Your task to perform on an android device: Toggle the flashlight Image 0: 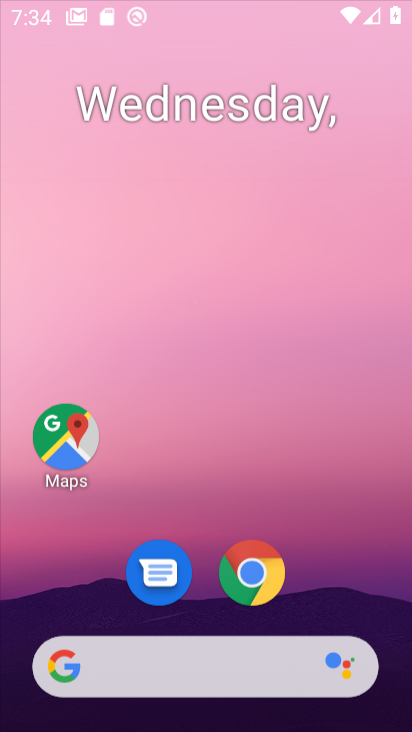
Step 0: click (403, 456)
Your task to perform on an android device: Toggle the flashlight Image 1: 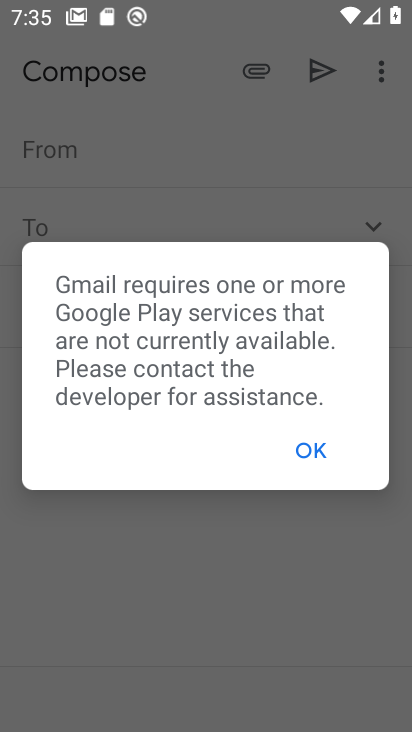
Step 1: task complete